Your task to perform on an android device: find photos in the google photos app Image 0: 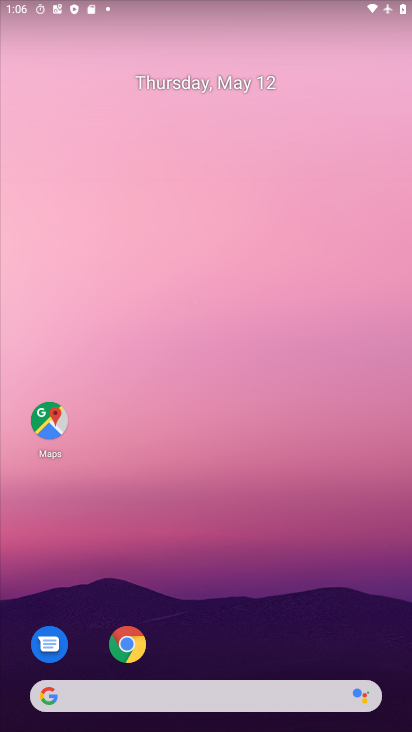
Step 0: drag from (254, 599) to (198, 7)
Your task to perform on an android device: find photos in the google photos app Image 1: 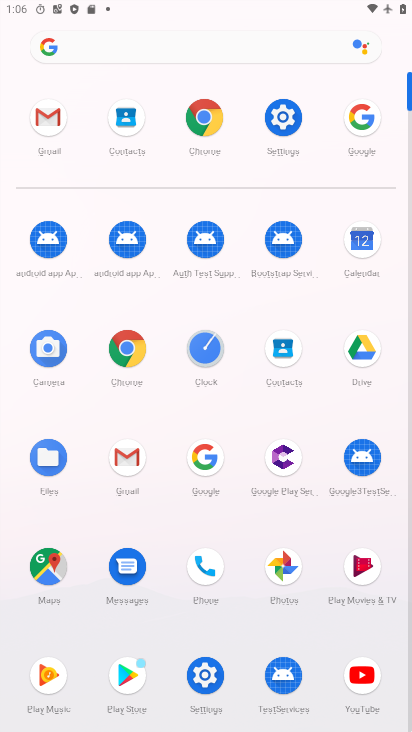
Step 1: click (289, 560)
Your task to perform on an android device: find photos in the google photos app Image 2: 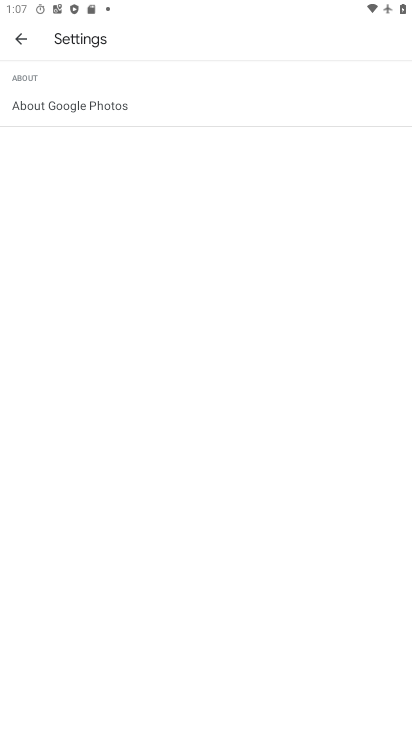
Step 2: click (5, 28)
Your task to perform on an android device: find photos in the google photos app Image 3: 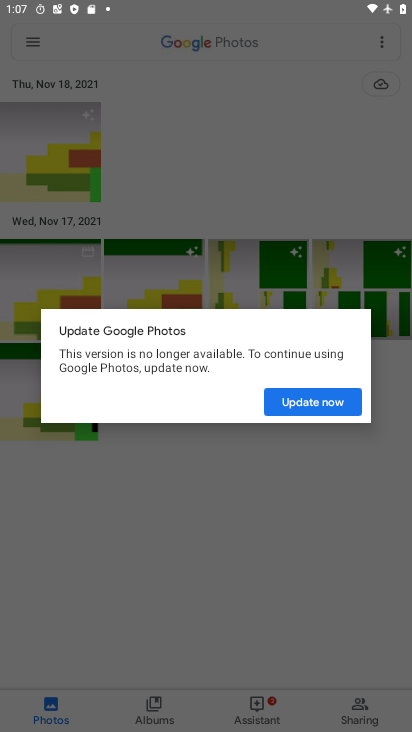
Step 3: click (292, 408)
Your task to perform on an android device: find photos in the google photos app Image 4: 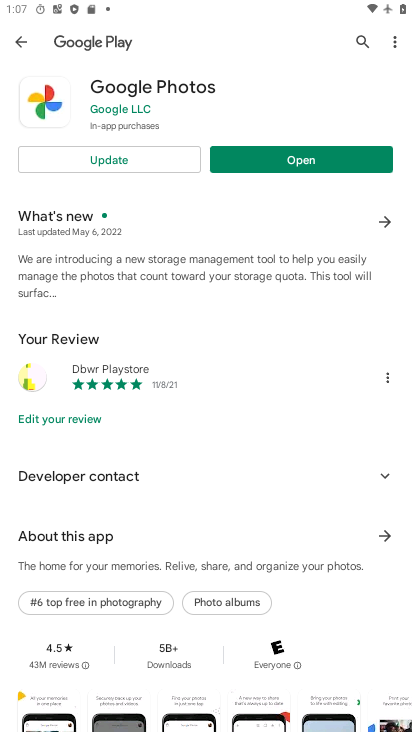
Step 4: click (133, 157)
Your task to perform on an android device: find photos in the google photos app Image 5: 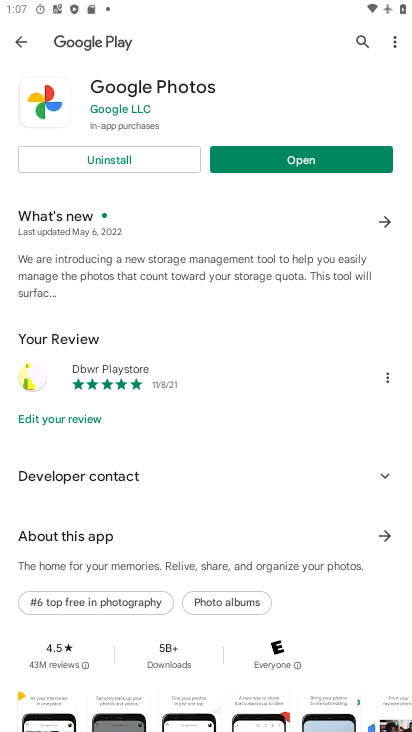
Step 5: click (336, 160)
Your task to perform on an android device: find photos in the google photos app Image 6: 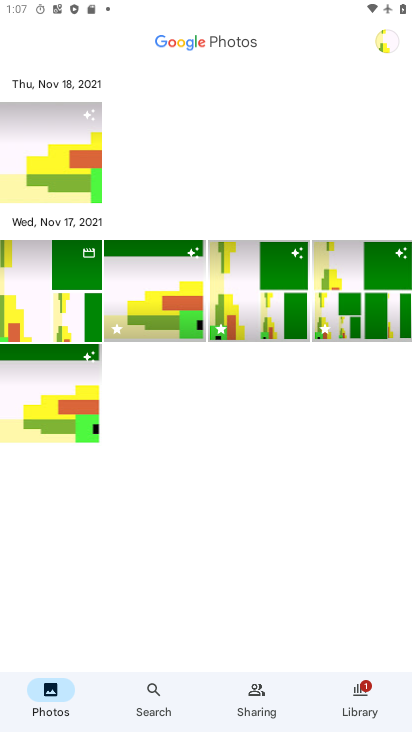
Step 6: task complete